Your task to perform on an android device: all mails in gmail Image 0: 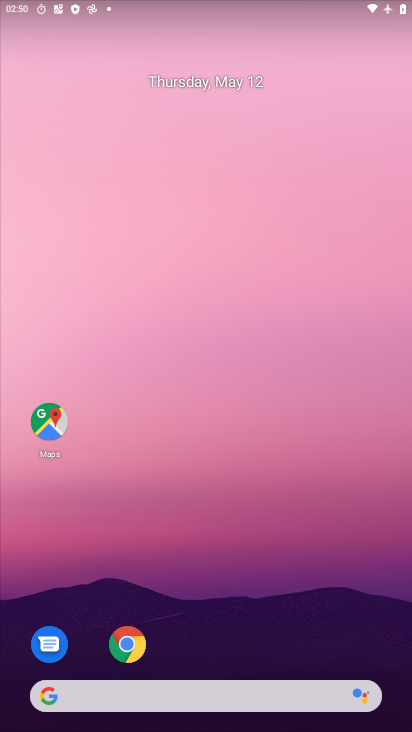
Step 0: drag from (238, 495) to (181, 94)
Your task to perform on an android device: all mails in gmail Image 1: 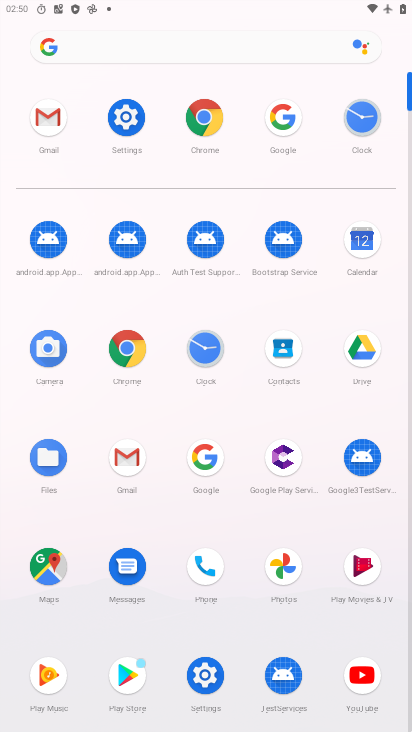
Step 1: click (133, 456)
Your task to perform on an android device: all mails in gmail Image 2: 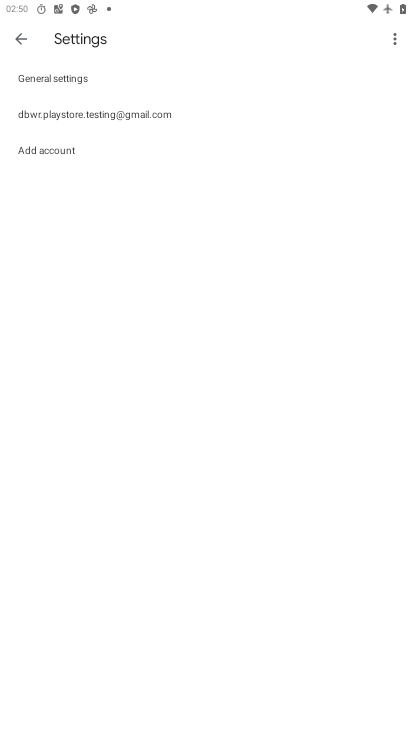
Step 2: click (16, 41)
Your task to perform on an android device: all mails in gmail Image 3: 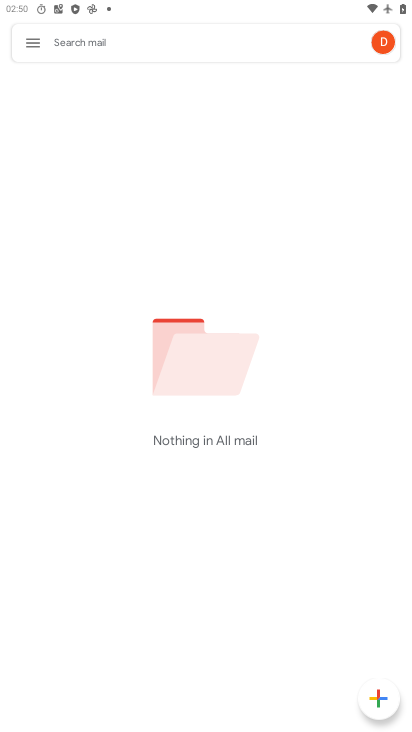
Step 3: click (33, 45)
Your task to perform on an android device: all mails in gmail Image 4: 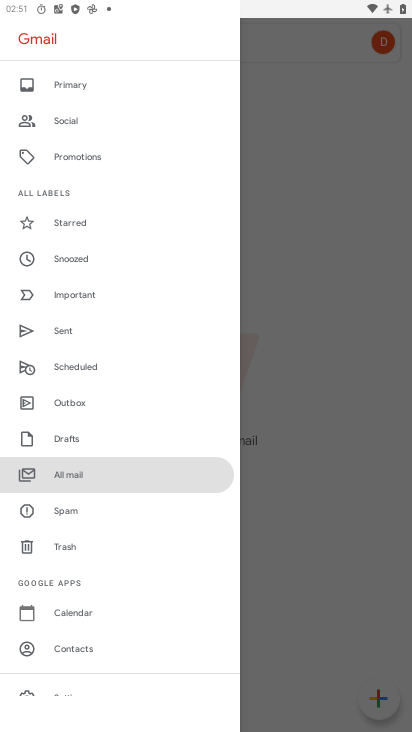
Step 4: click (110, 481)
Your task to perform on an android device: all mails in gmail Image 5: 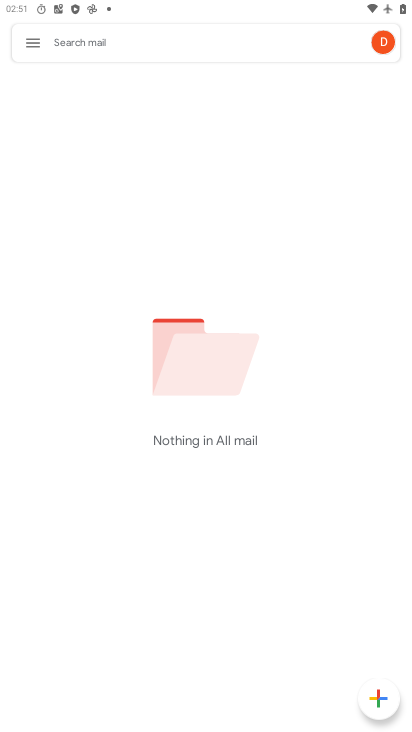
Step 5: task complete